Your task to perform on an android device: Go to privacy settings Image 0: 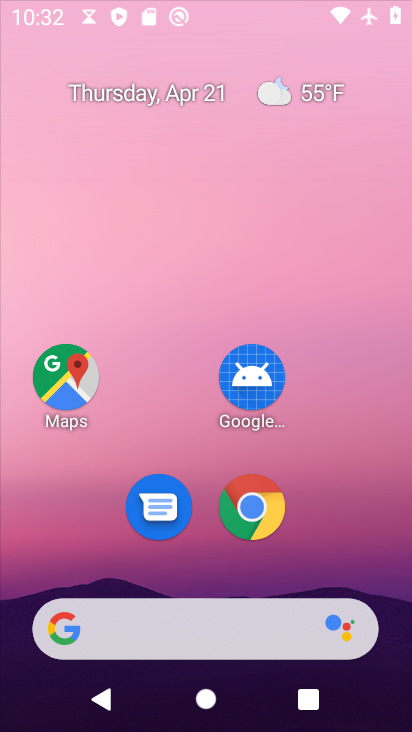
Step 0: drag from (331, 393) to (360, 163)
Your task to perform on an android device: Go to privacy settings Image 1: 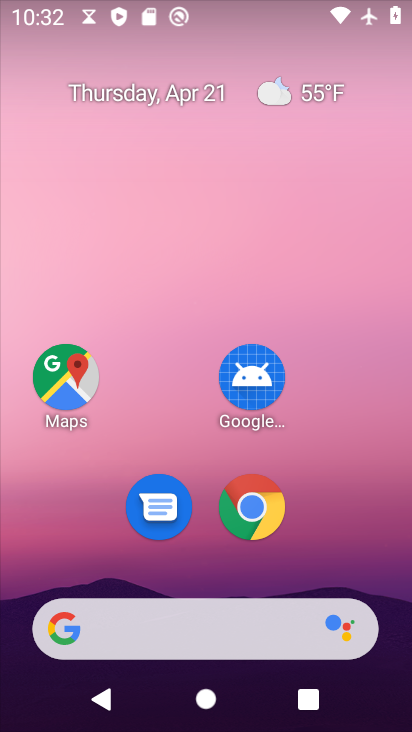
Step 1: drag from (335, 567) to (390, 140)
Your task to perform on an android device: Go to privacy settings Image 2: 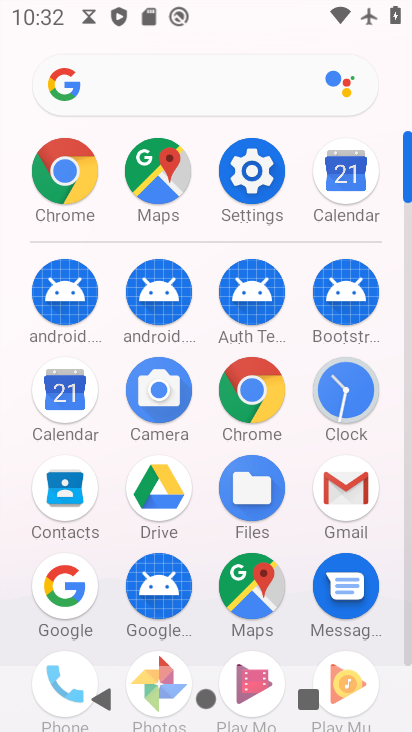
Step 2: click (248, 382)
Your task to perform on an android device: Go to privacy settings Image 3: 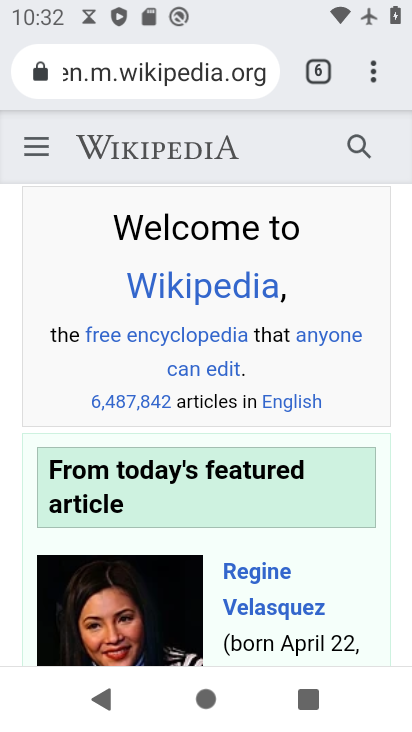
Step 3: click (247, 382)
Your task to perform on an android device: Go to privacy settings Image 4: 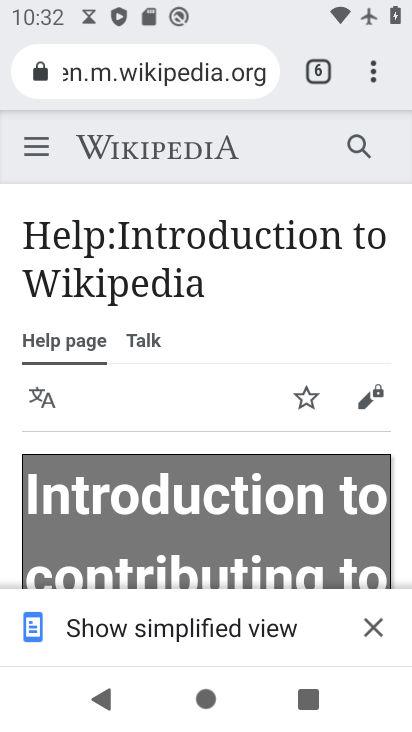
Step 4: click (367, 77)
Your task to perform on an android device: Go to privacy settings Image 5: 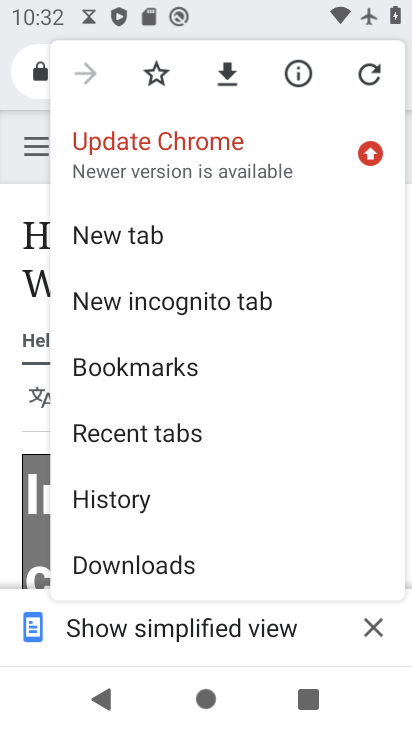
Step 5: drag from (231, 521) to (219, 160)
Your task to perform on an android device: Go to privacy settings Image 6: 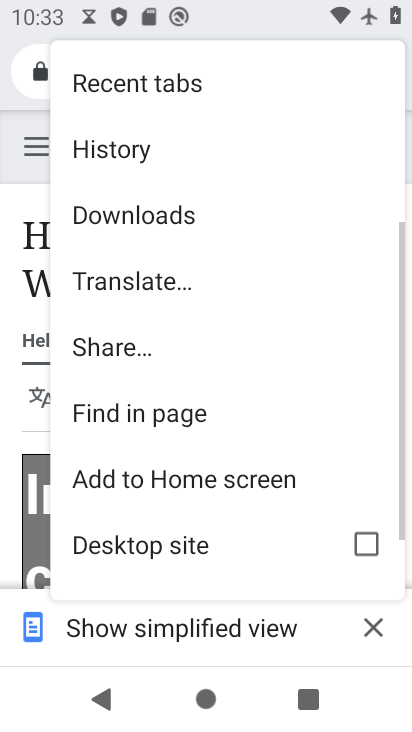
Step 6: drag from (179, 555) to (237, 162)
Your task to perform on an android device: Go to privacy settings Image 7: 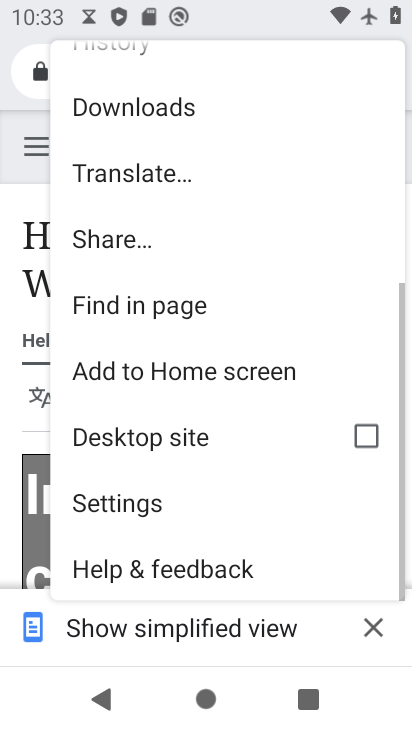
Step 7: click (166, 497)
Your task to perform on an android device: Go to privacy settings Image 8: 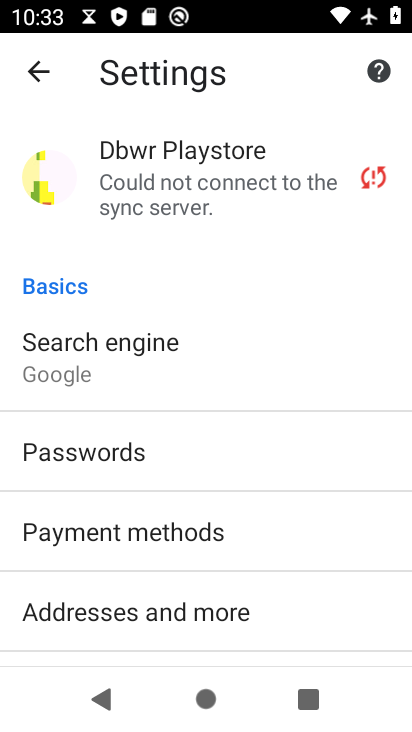
Step 8: drag from (203, 563) to (248, 124)
Your task to perform on an android device: Go to privacy settings Image 9: 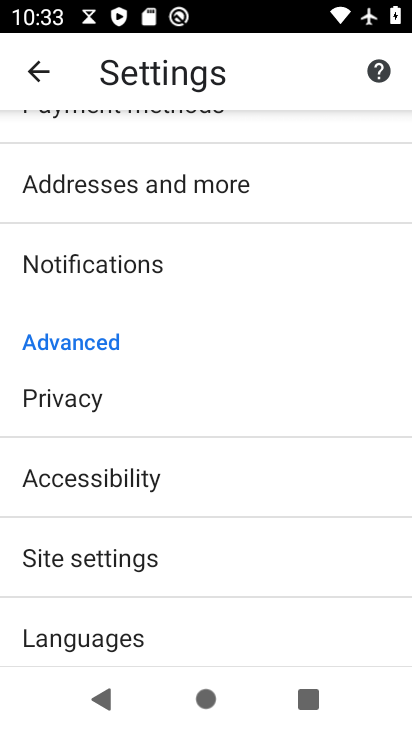
Step 9: click (90, 399)
Your task to perform on an android device: Go to privacy settings Image 10: 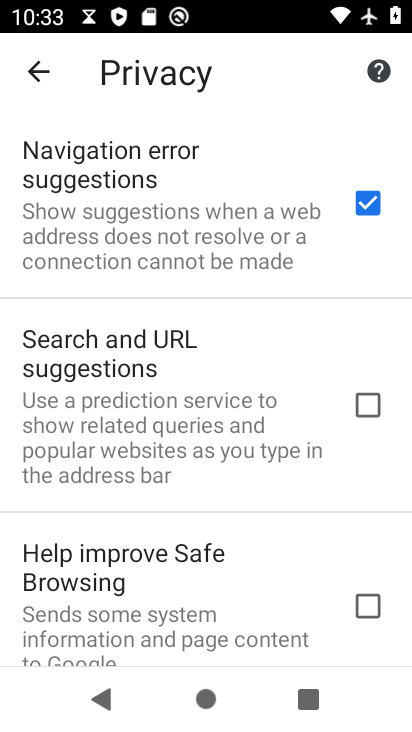
Step 10: task complete